Your task to perform on an android device: Open settings Image 0: 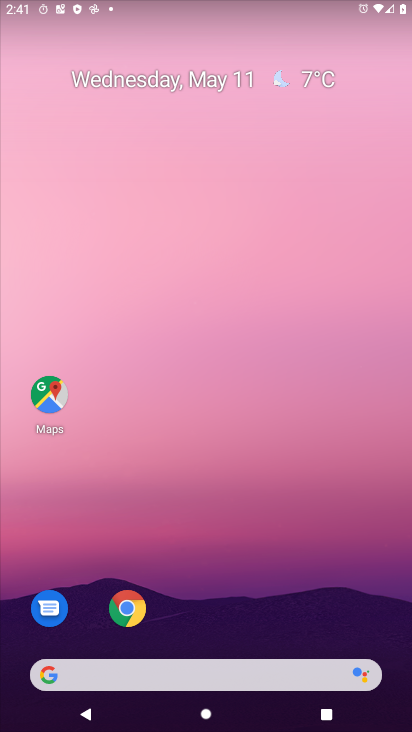
Step 0: drag from (208, 611) to (194, 102)
Your task to perform on an android device: Open settings Image 1: 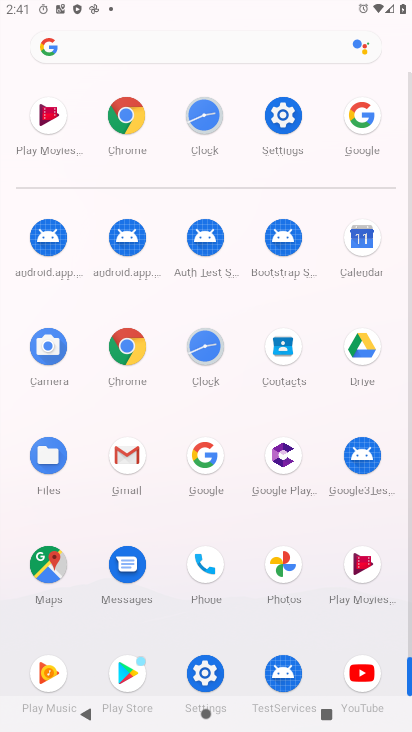
Step 1: click (283, 113)
Your task to perform on an android device: Open settings Image 2: 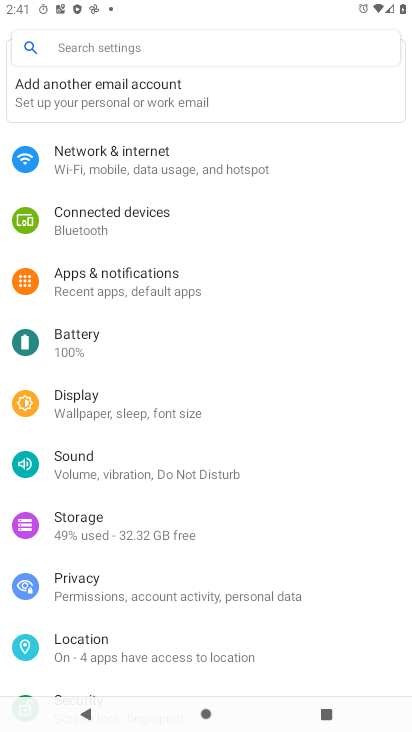
Step 2: task complete